Your task to perform on an android device: toggle wifi Image 0: 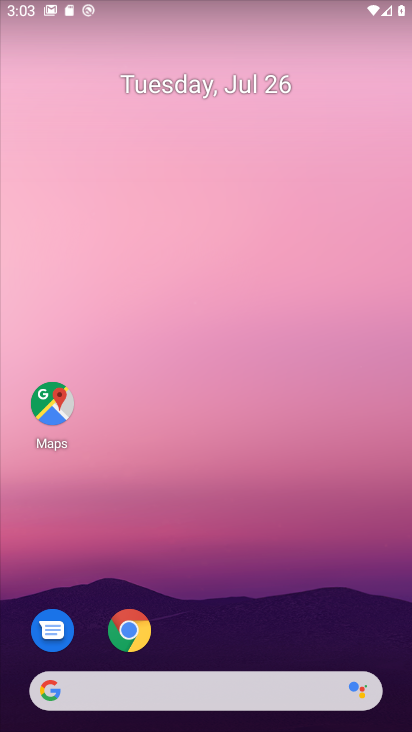
Step 0: drag from (205, 16) to (203, 543)
Your task to perform on an android device: toggle wifi Image 1: 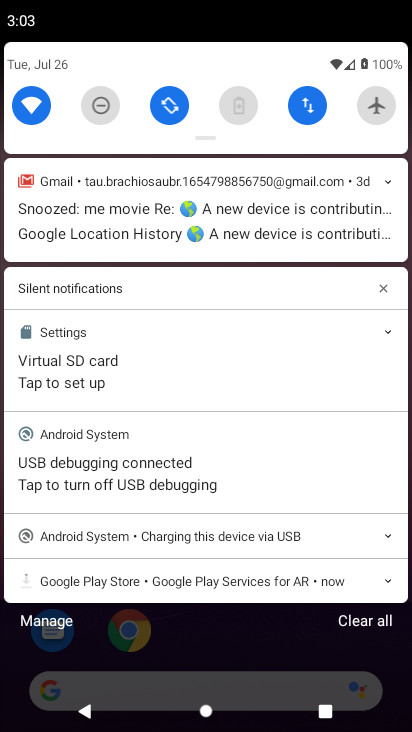
Step 1: click (25, 98)
Your task to perform on an android device: toggle wifi Image 2: 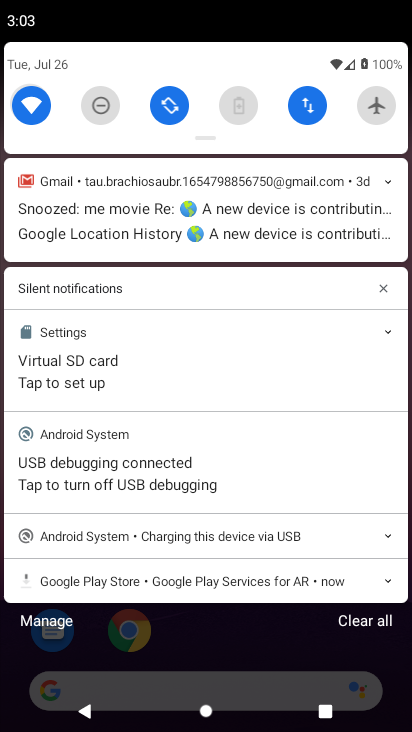
Step 2: click (25, 98)
Your task to perform on an android device: toggle wifi Image 3: 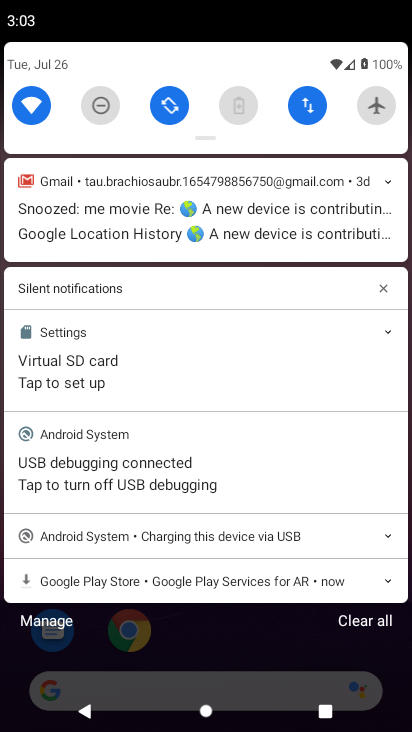
Step 3: click (25, 98)
Your task to perform on an android device: toggle wifi Image 4: 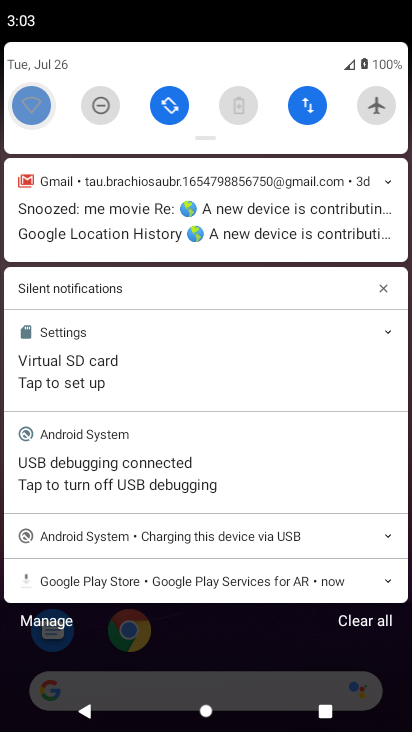
Step 4: click (25, 98)
Your task to perform on an android device: toggle wifi Image 5: 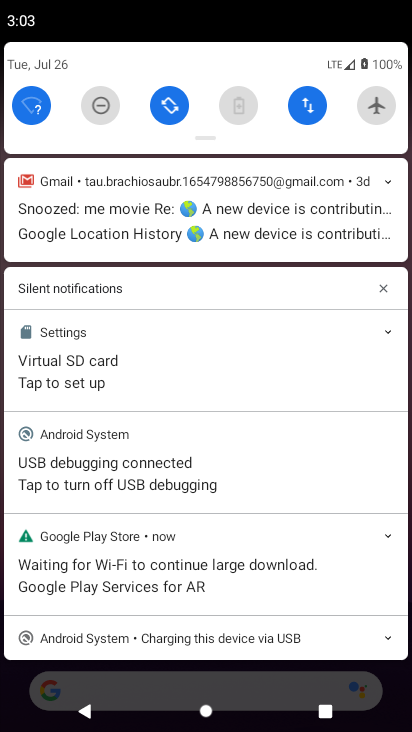
Step 5: task complete